Your task to perform on an android device: toggle improve location accuracy Image 0: 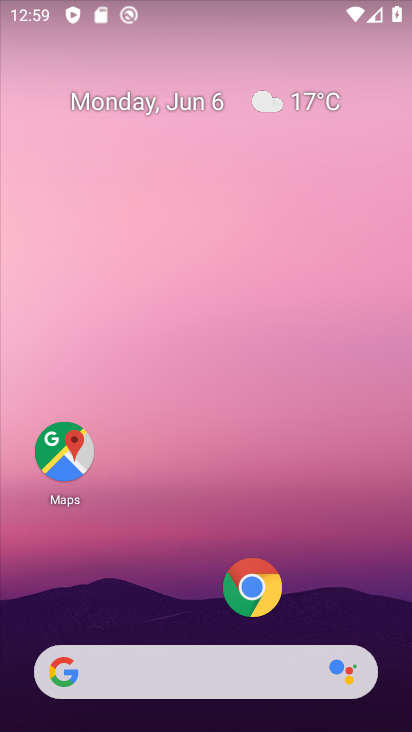
Step 0: drag from (167, 624) to (262, 83)
Your task to perform on an android device: toggle improve location accuracy Image 1: 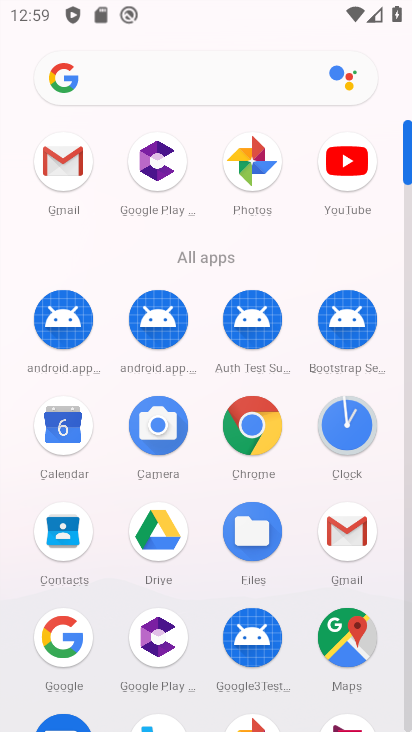
Step 1: drag from (207, 568) to (234, 182)
Your task to perform on an android device: toggle improve location accuracy Image 2: 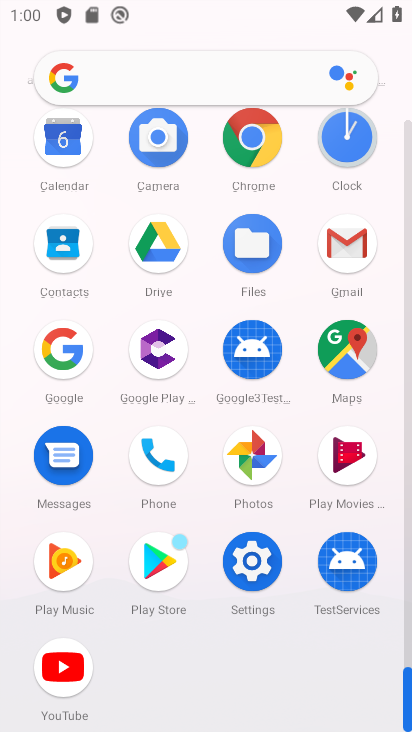
Step 2: click (251, 563)
Your task to perform on an android device: toggle improve location accuracy Image 3: 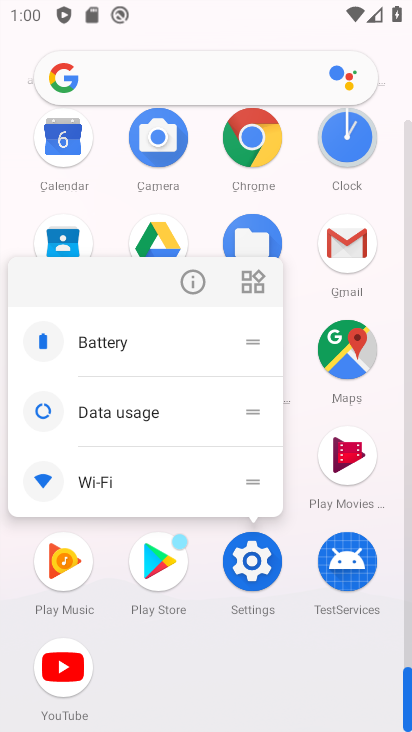
Step 3: click (259, 563)
Your task to perform on an android device: toggle improve location accuracy Image 4: 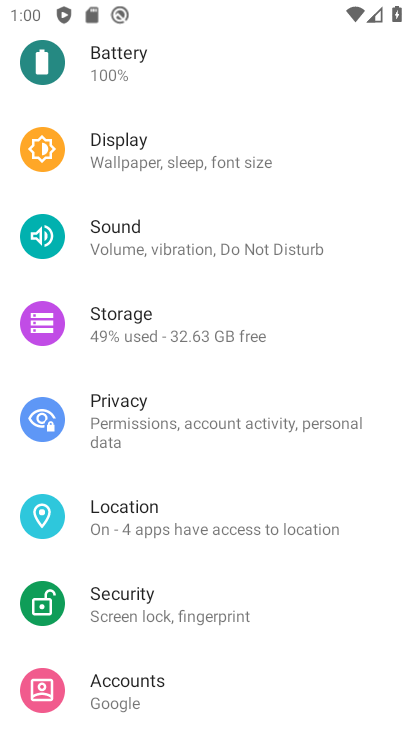
Step 4: click (170, 535)
Your task to perform on an android device: toggle improve location accuracy Image 5: 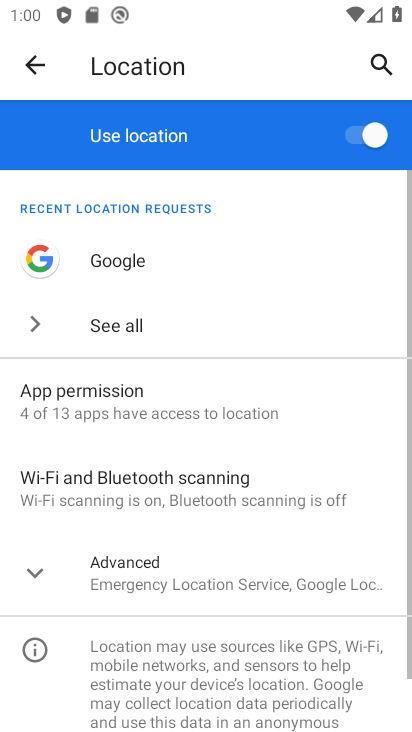
Step 5: click (155, 581)
Your task to perform on an android device: toggle improve location accuracy Image 6: 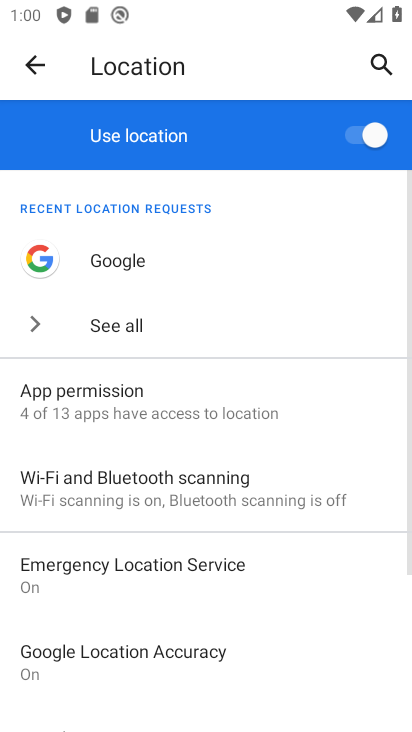
Step 6: drag from (173, 673) to (176, 553)
Your task to perform on an android device: toggle improve location accuracy Image 7: 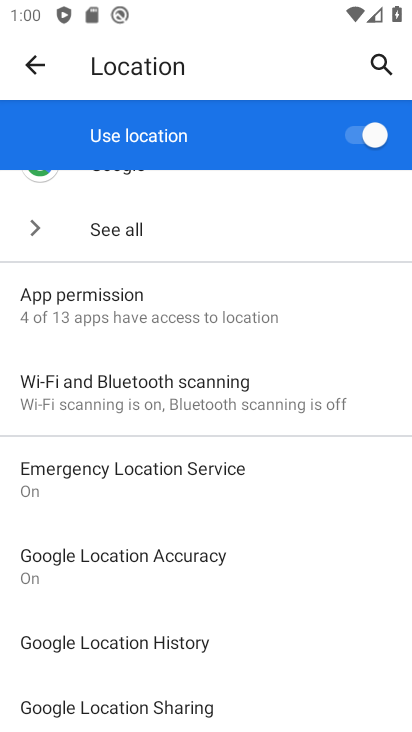
Step 7: click (153, 568)
Your task to perform on an android device: toggle improve location accuracy Image 8: 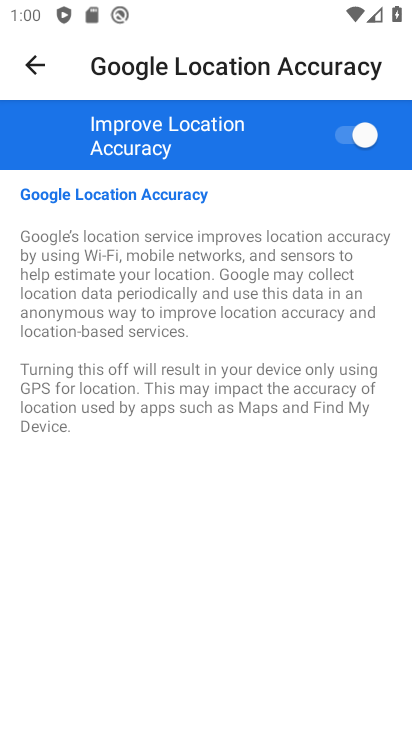
Step 8: click (319, 154)
Your task to perform on an android device: toggle improve location accuracy Image 9: 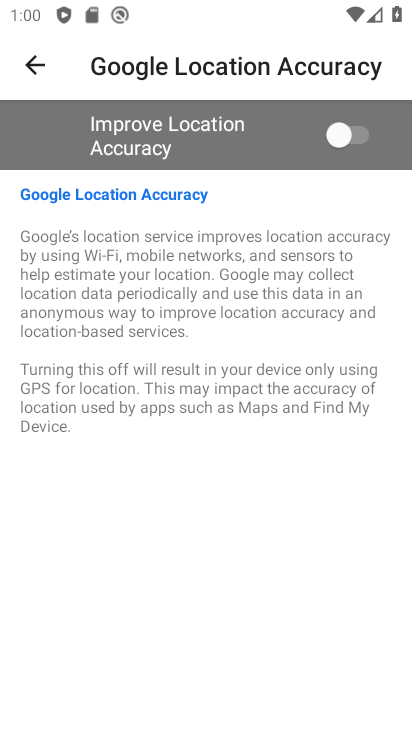
Step 9: task complete